Your task to perform on an android device: open app "Firefox Browser" (install if not already installed), go to login, and select forgot password Image 0: 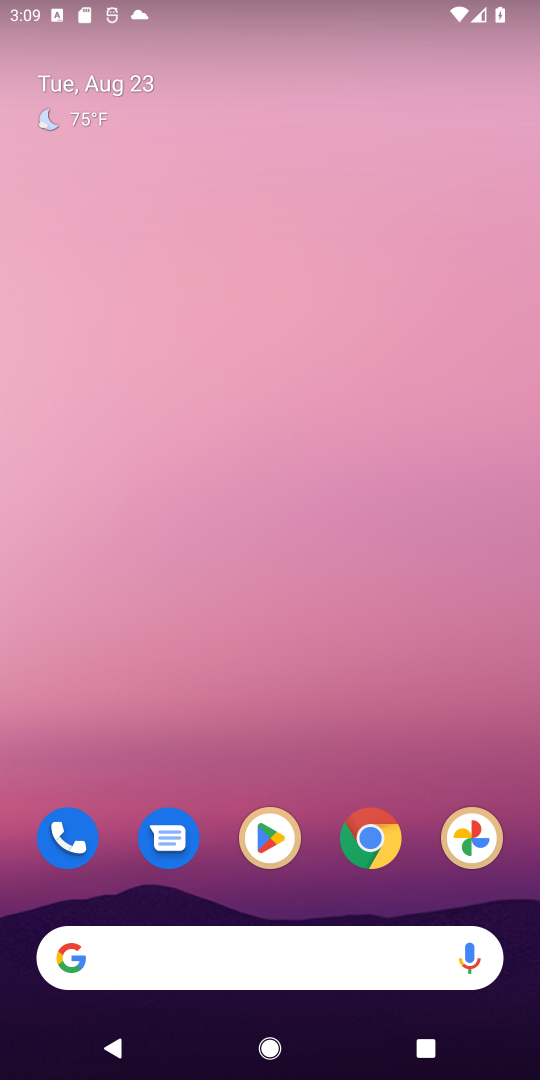
Step 0: click (237, 836)
Your task to perform on an android device: open app "Firefox Browser" (install if not already installed), go to login, and select forgot password Image 1: 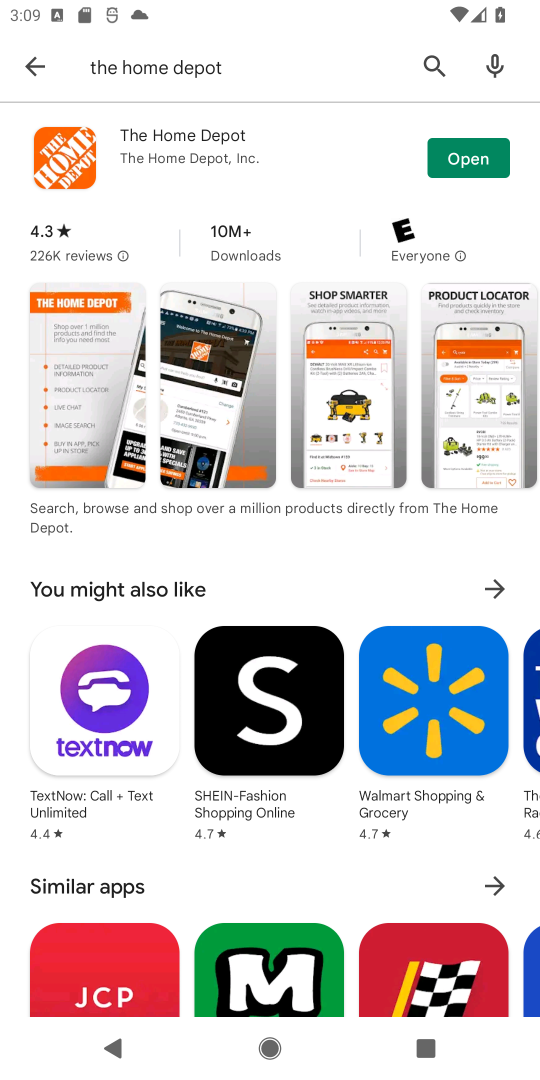
Step 1: click (30, 68)
Your task to perform on an android device: open app "Firefox Browser" (install if not already installed), go to login, and select forgot password Image 2: 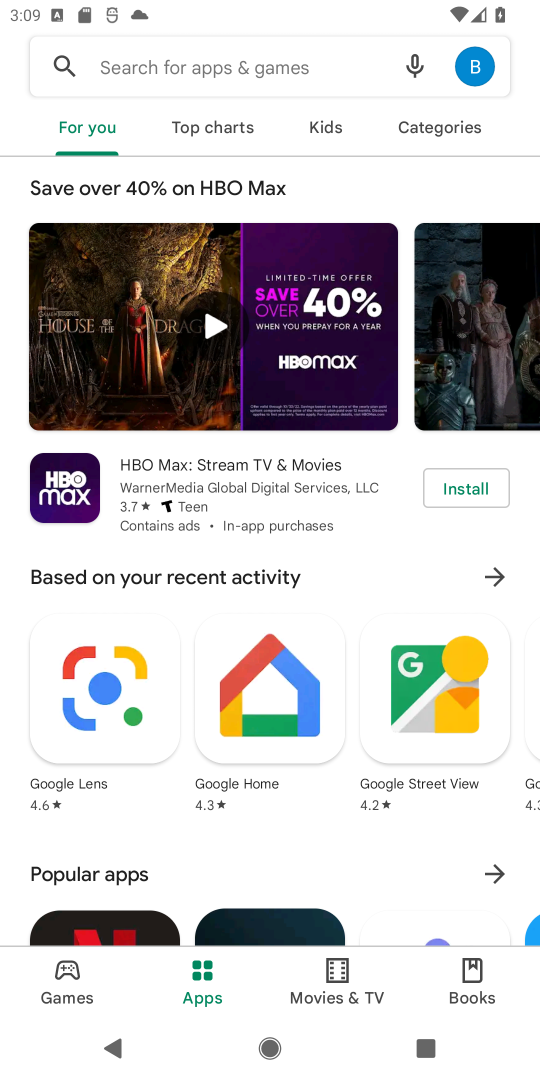
Step 2: click (165, 52)
Your task to perform on an android device: open app "Firefox Browser" (install if not already installed), go to login, and select forgot password Image 3: 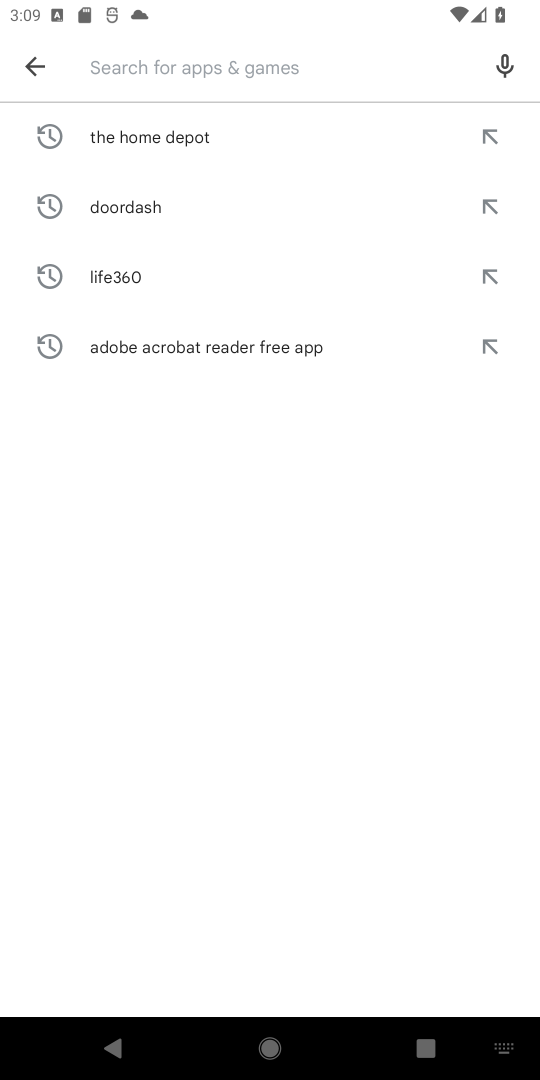
Step 3: type "Firefox Browser"
Your task to perform on an android device: open app "Firefox Browser" (install if not already installed), go to login, and select forgot password Image 4: 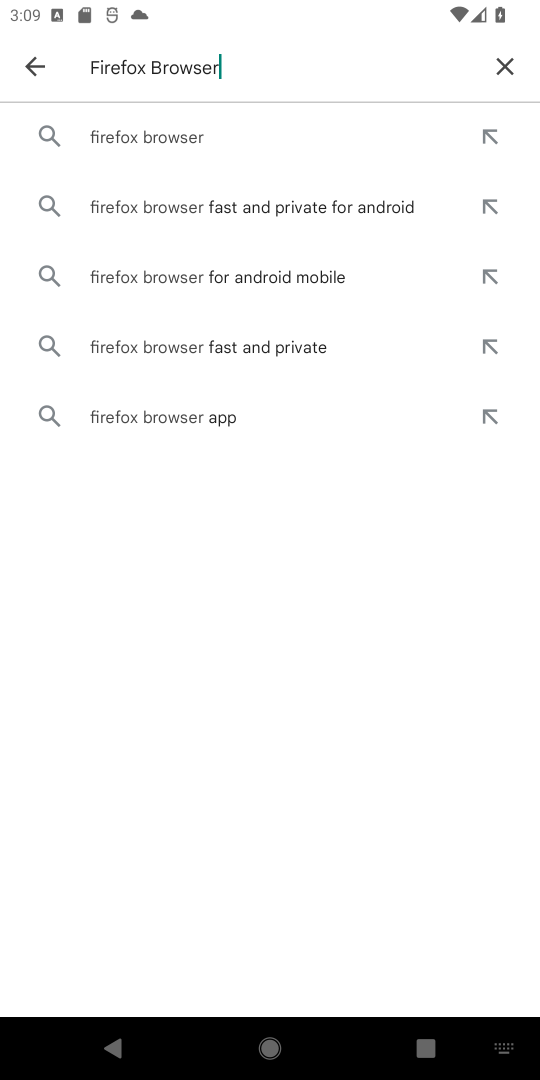
Step 4: click (135, 144)
Your task to perform on an android device: open app "Firefox Browser" (install if not already installed), go to login, and select forgot password Image 5: 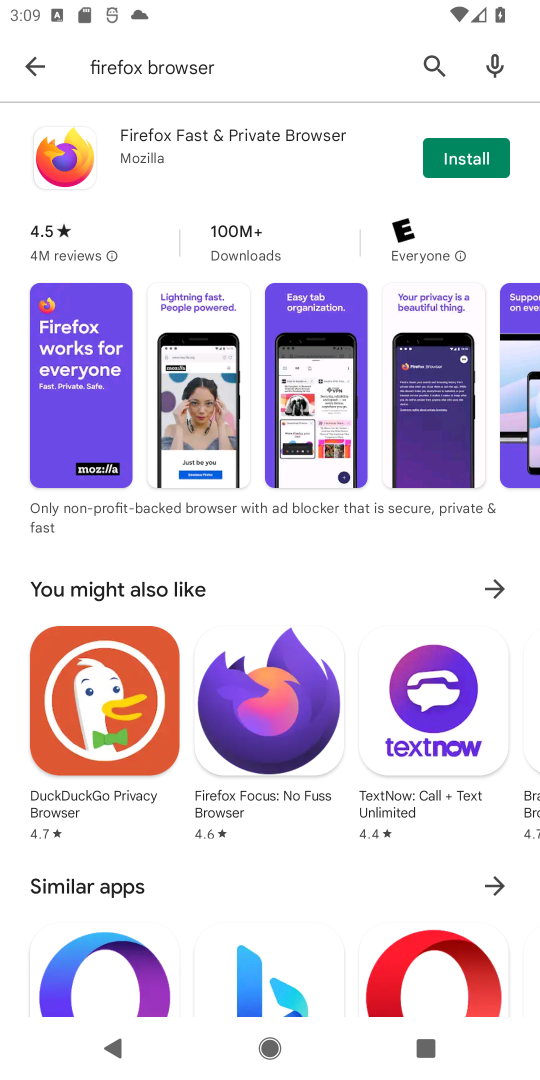
Step 5: click (464, 144)
Your task to perform on an android device: open app "Firefox Browser" (install if not already installed), go to login, and select forgot password Image 6: 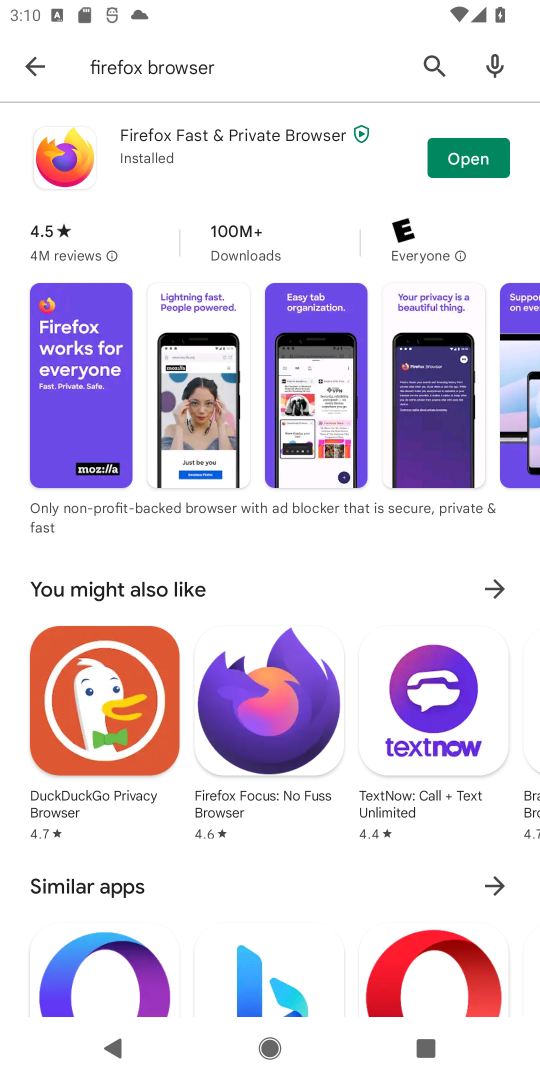
Step 6: click (462, 168)
Your task to perform on an android device: open app "Firefox Browser" (install if not already installed), go to login, and select forgot password Image 7: 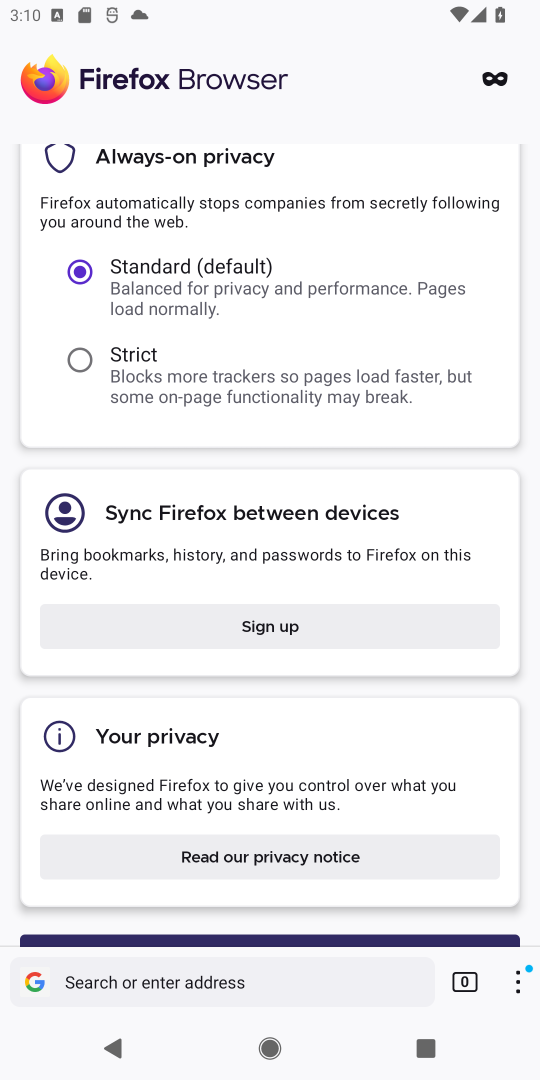
Step 7: task complete